Your task to perform on an android device: What's the weather going to be tomorrow? Image 0: 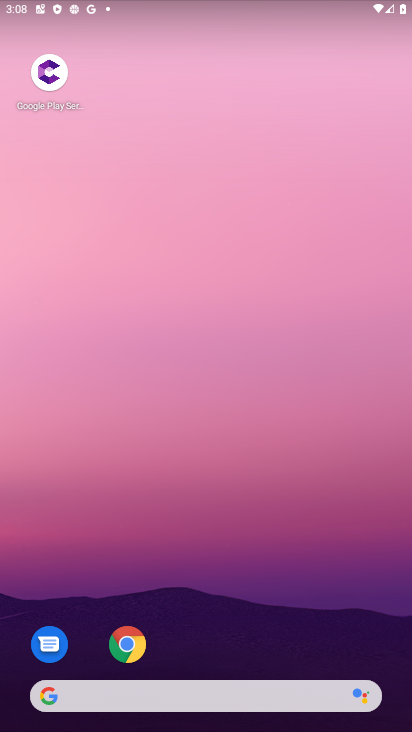
Step 0: drag from (264, 550) to (230, 125)
Your task to perform on an android device: What's the weather going to be tomorrow? Image 1: 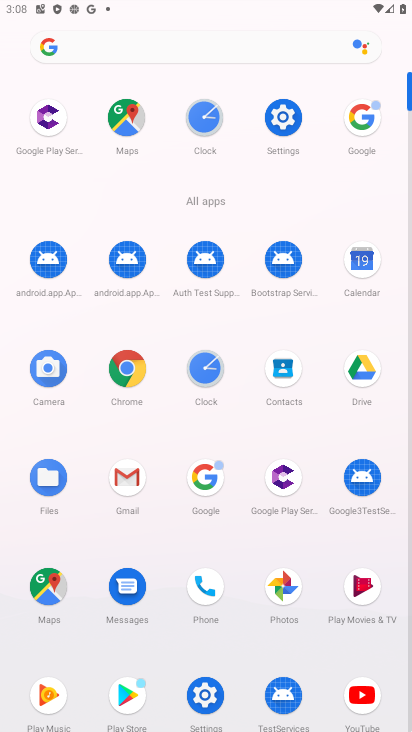
Step 1: click (212, 488)
Your task to perform on an android device: What's the weather going to be tomorrow? Image 2: 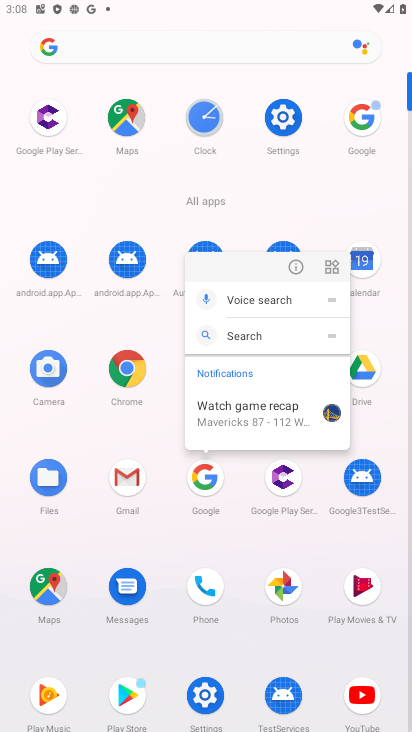
Step 2: click (210, 490)
Your task to perform on an android device: What's the weather going to be tomorrow? Image 3: 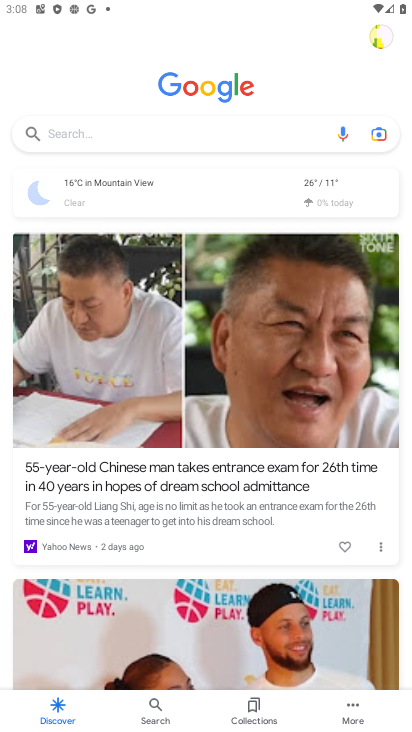
Step 3: click (100, 130)
Your task to perform on an android device: What's the weather going to be tomorrow? Image 4: 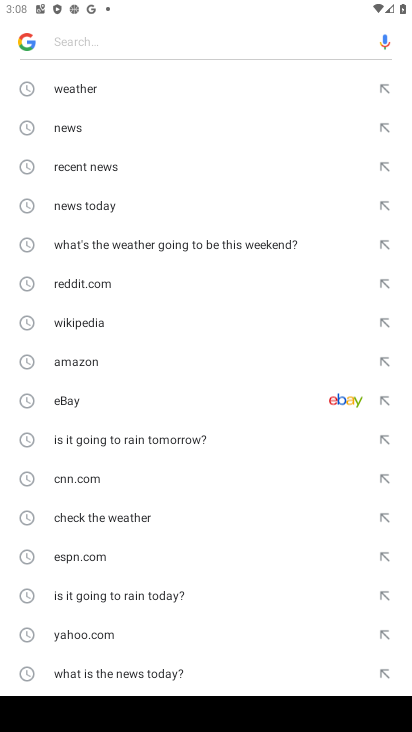
Step 4: drag from (217, 523) to (204, 220)
Your task to perform on an android device: What's the weather going to be tomorrow? Image 5: 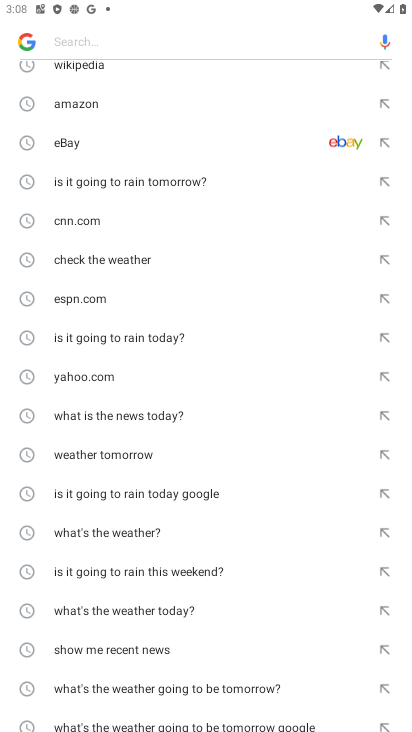
Step 5: click (215, 693)
Your task to perform on an android device: What's the weather going to be tomorrow? Image 6: 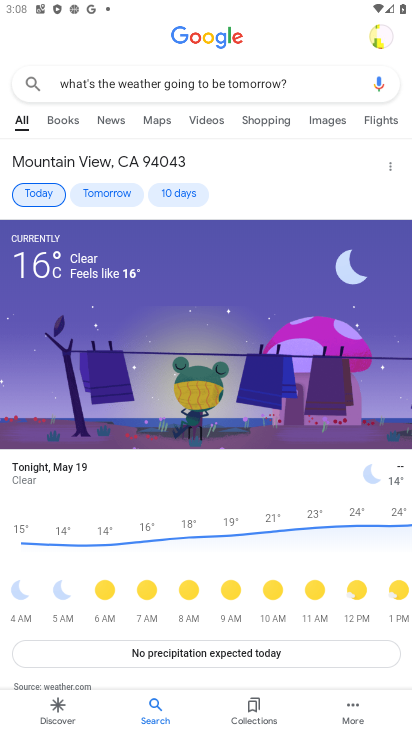
Step 6: task complete